Your task to perform on an android device: Do I have any events today? Image 0: 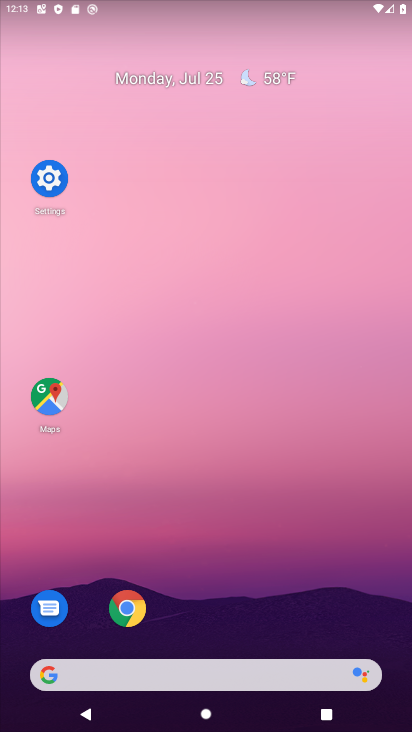
Step 0: drag from (230, 620) to (246, 119)
Your task to perform on an android device: Do I have any events today? Image 1: 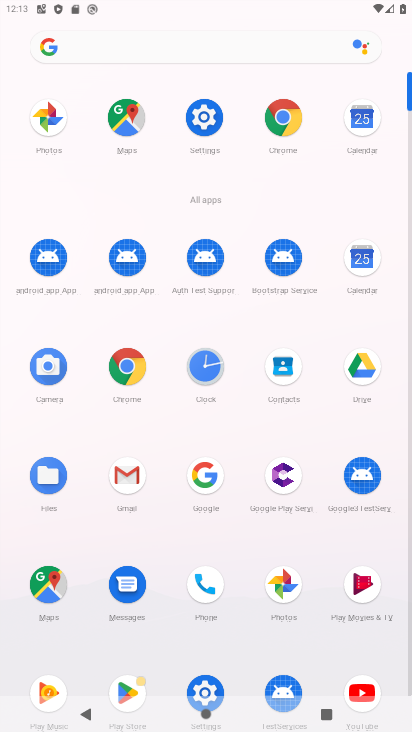
Step 1: drag from (356, 109) to (160, 181)
Your task to perform on an android device: Do I have any events today? Image 2: 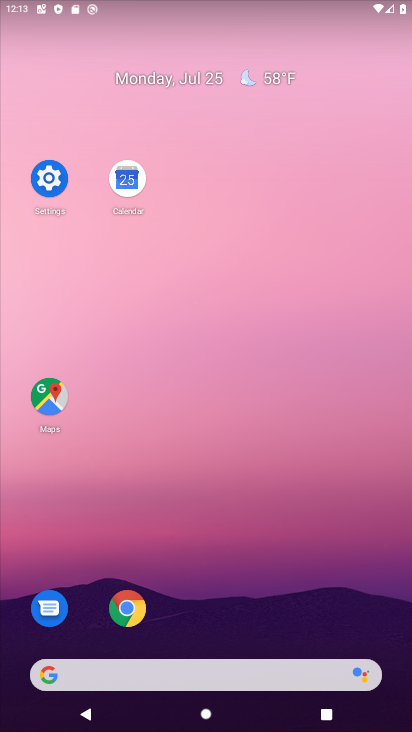
Step 2: click (134, 187)
Your task to perform on an android device: Do I have any events today? Image 3: 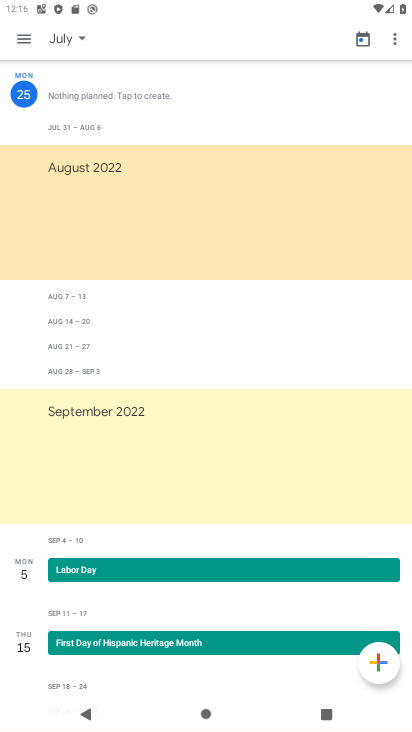
Step 3: task complete